Your task to perform on an android device: What's on my calendar tomorrow? Image 0: 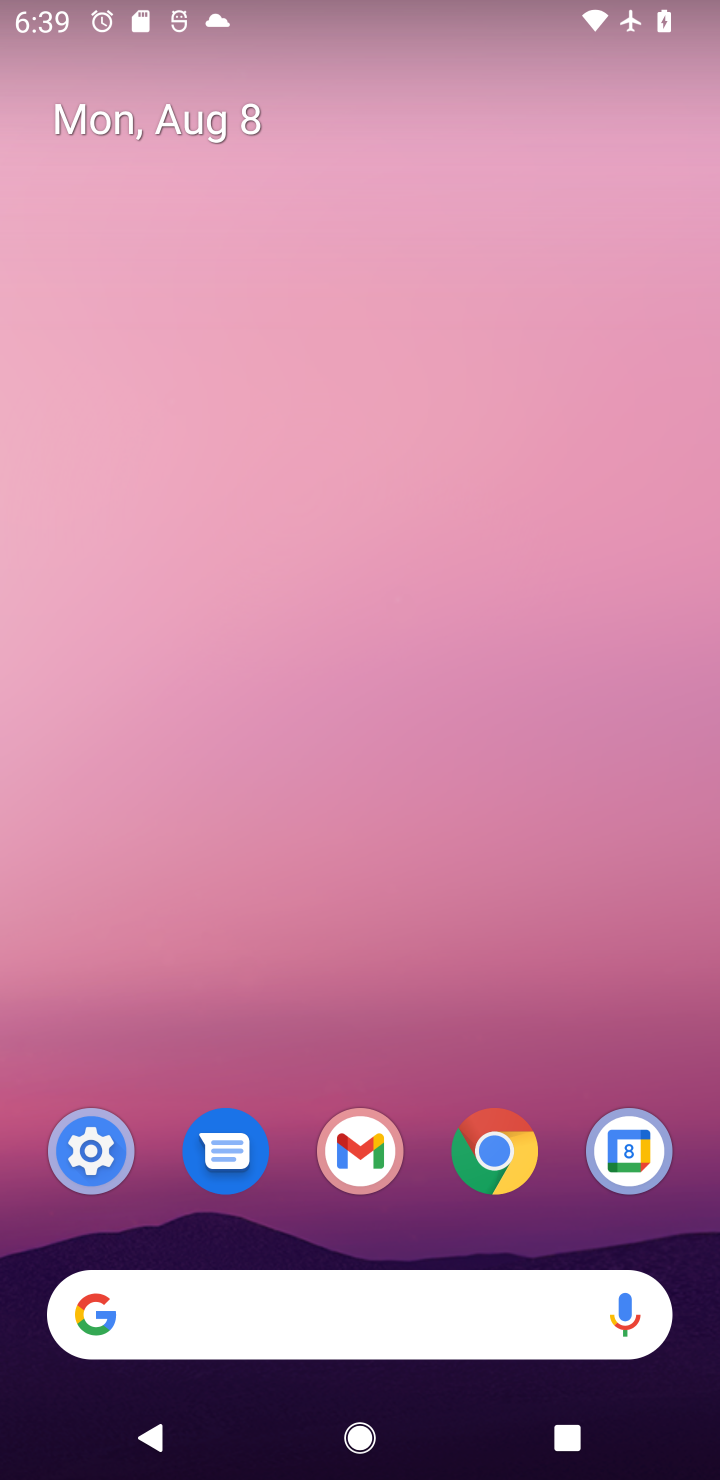
Step 0: drag from (344, 1049) to (357, 210)
Your task to perform on an android device: What's on my calendar tomorrow? Image 1: 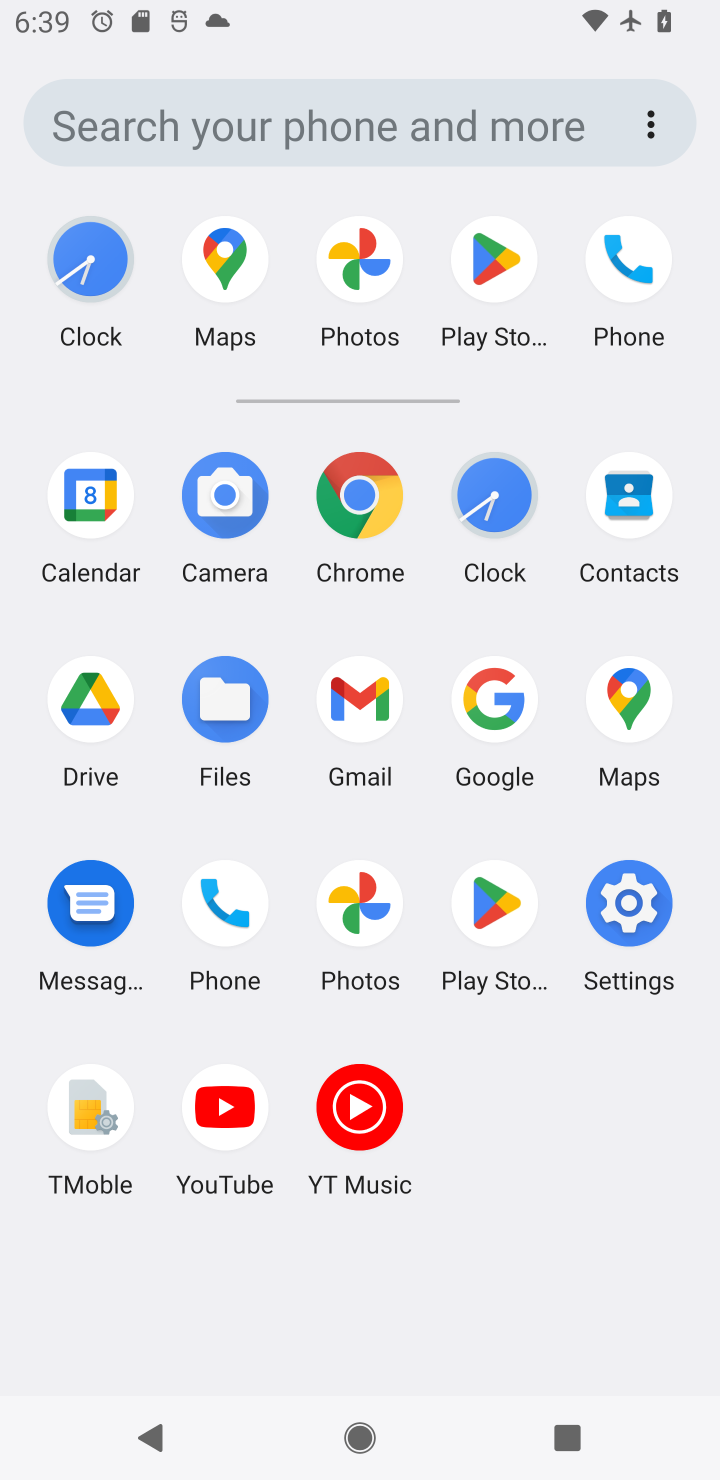
Step 1: click (91, 497)
Your task to perform on an android device: What's on my calendar tomorrow? Image 2: 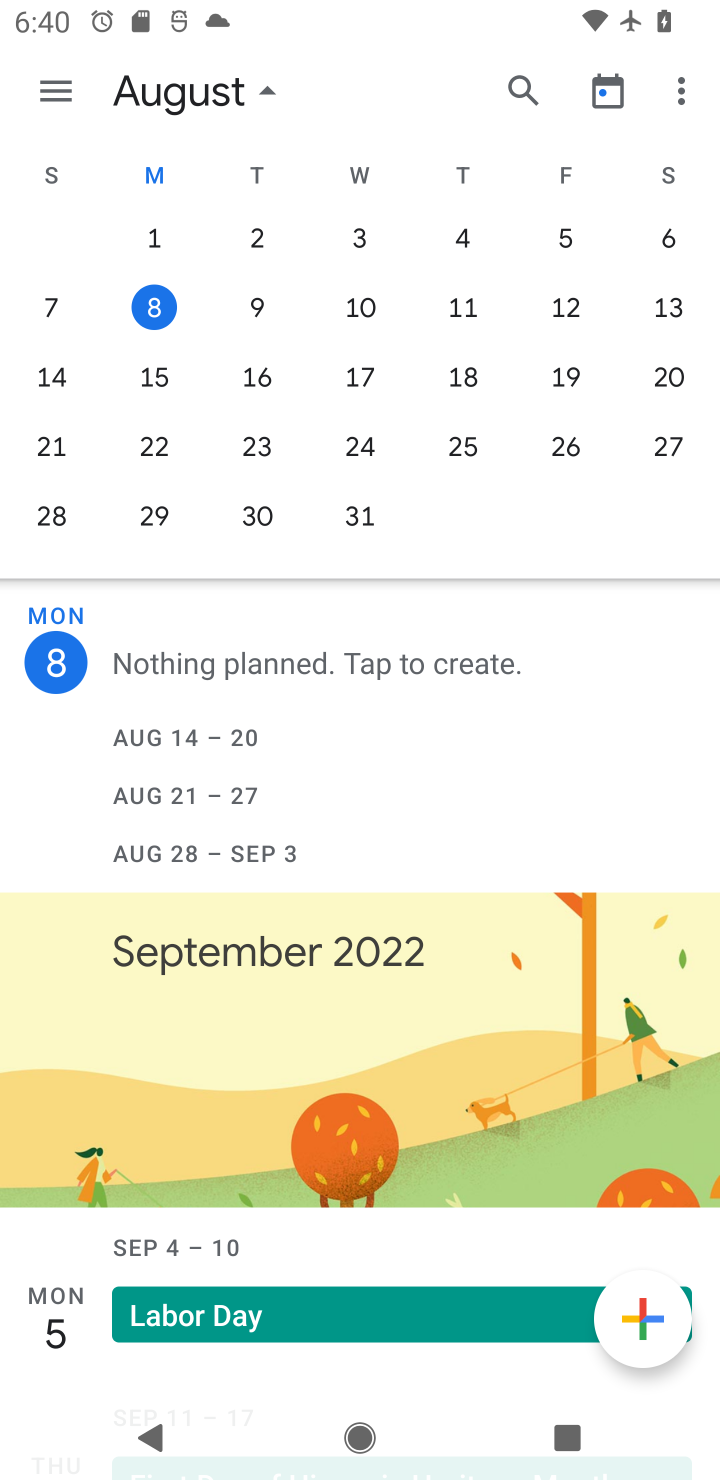
Step 2: click (250, 317)
Your task to perform on an android device: What's on my calendar tomorrow? Image 3: 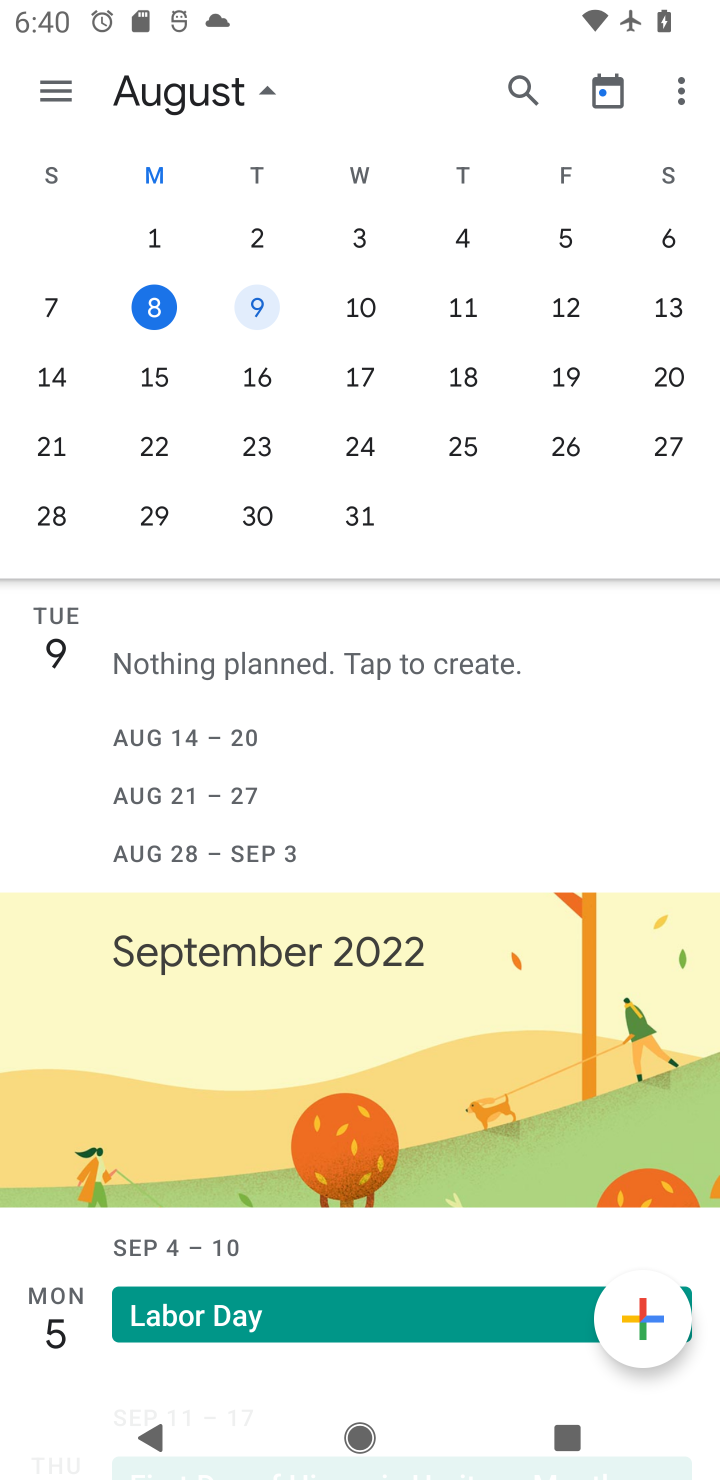
Step 3: click (258, 320)
Your task to perform on an android device: What's on my calendar tomorrow? Image 4: 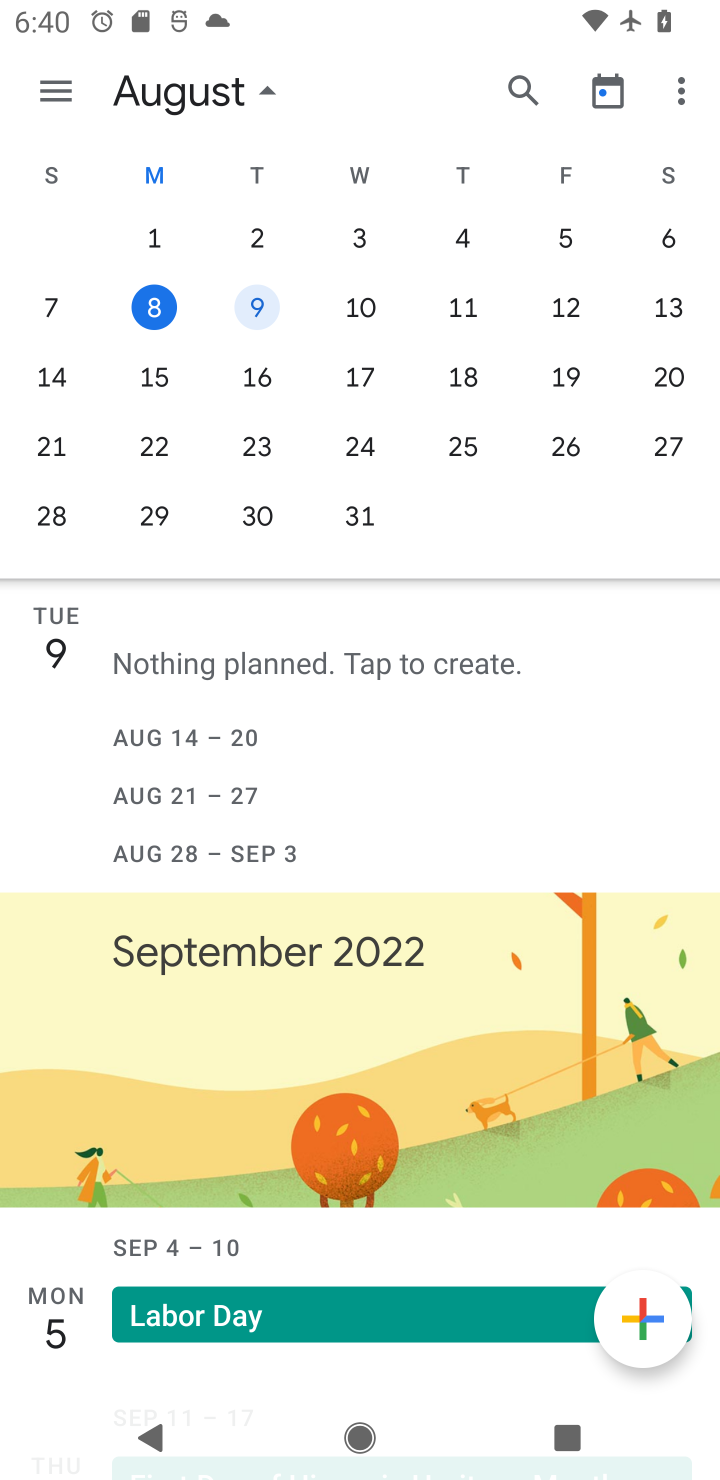
Step 4: task complete